Your task to perform on an android device: change alarm snooze length Image 0: 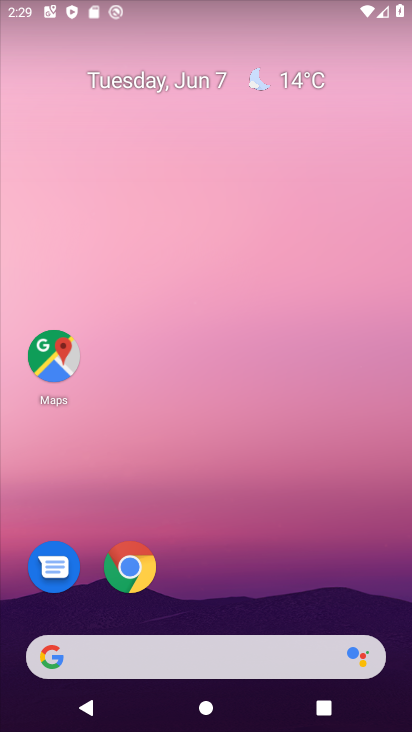
Step 0: drag from (209, 596) to (197, 168)
Your task to perform on an android device: change alarm snooze length Image 1: 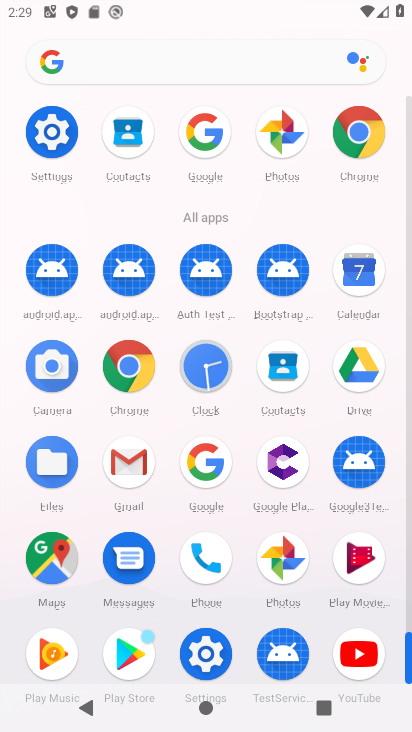
Step 1: click (224, 376)
Your task to perform on an android device: change alarm snooze length Image 2: 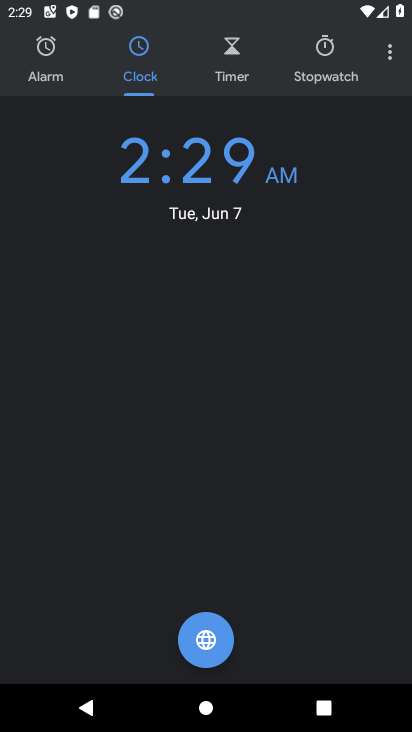
Step 2: click (383, 53)
Your task to perform on an android device: change alarm snooze length Image 3: 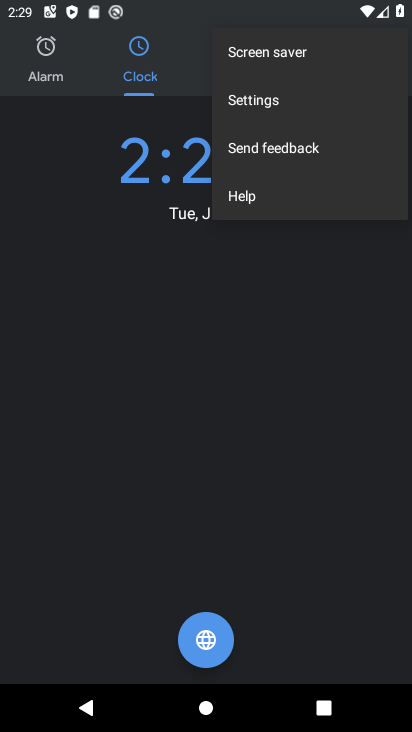
Step 3: click (273, 109)
Your task to perform on an android device: change alarm snooze length Image 4: 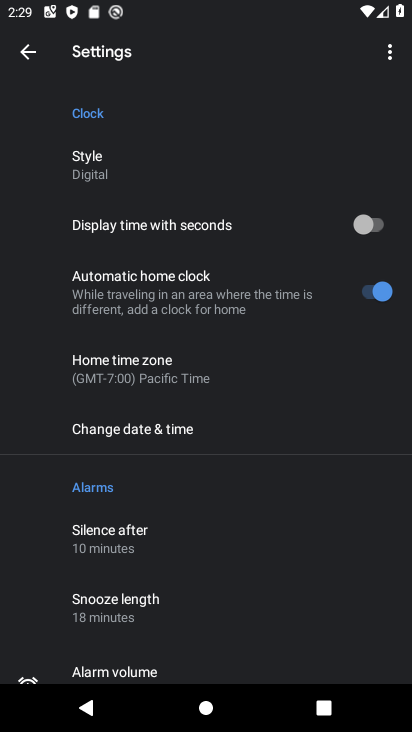
Step 4: drag from (238, 580) to (246, 379)
Your task to perform on an android device: change alarm snooze length Image 5: 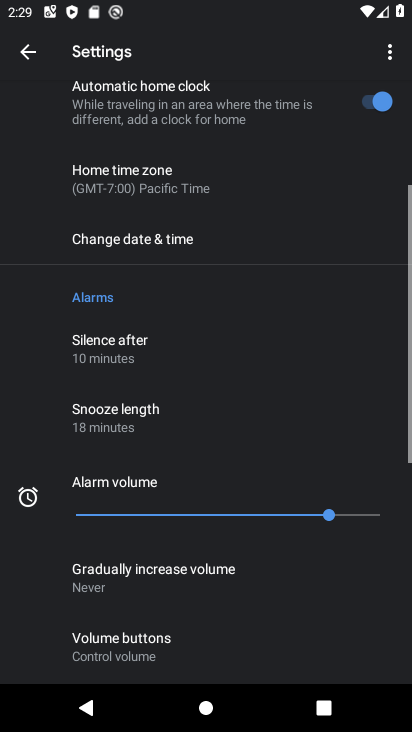
Step 5: click (166, 422)
Your task to perform on an android device: change alarm snooze length Image 6: 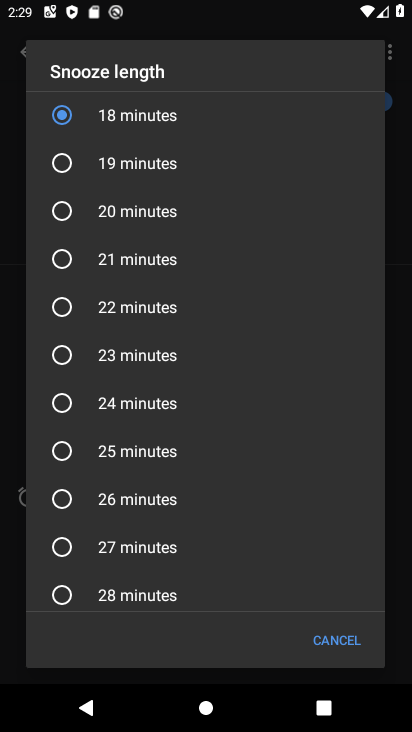
Step 6: click (160, 491)
Your task to perform on an android device: change alarm snooze length Image 7: 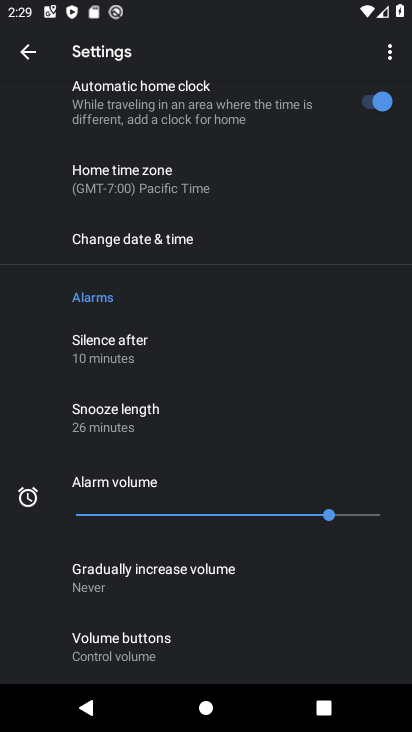
Step 7: task complete